Your task to perform on an android device: Check the latest 3D printers on Target. Image 0: 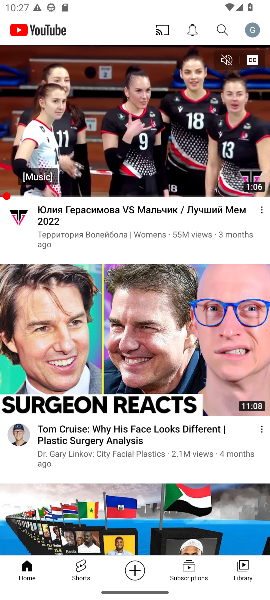
Step 0: press home button
Your task to perform on an android device: Check the latest 3D printers on Target. Image 1: 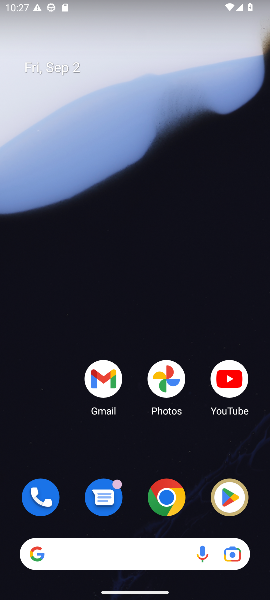
Step 1: click (163, 500)
Your task to perform on an android device: Check the latest 3D printers on Target. Image 2: 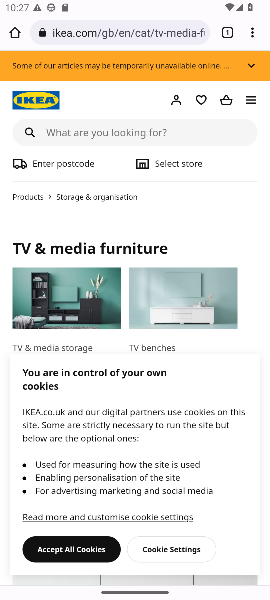
Step 2: click (132, 30)
Your task to perform on an android device: Check the latest 3D printers on Target. Image 3: 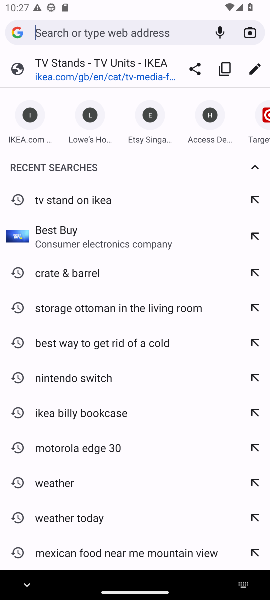
Step 3: type "target"
Your task to perform on an android device: Check the latest 3D printers on Target. Image 4: 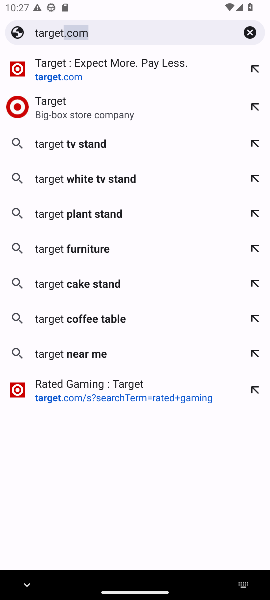
Step 4: click (81, 79)
Your task to perform on an android device: Check the latest 3D printers on Target. Image 5: 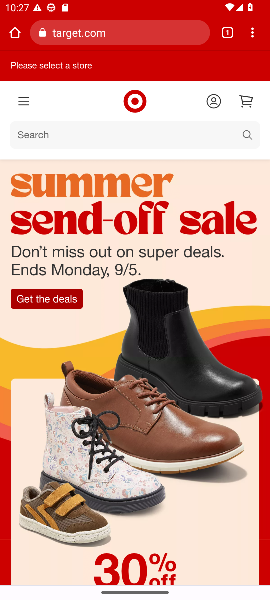
Step 5: click (129, 141)
Your task to perform on an android device: Check the latest 3D printers on Target. Image 6: 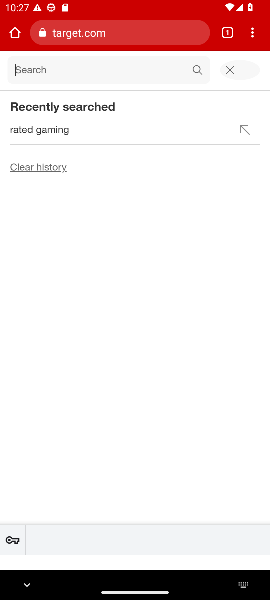
Step 6: type "3d printers"
Your task to perform on an android device: Check the latest 3D printers on Target. Image 7: 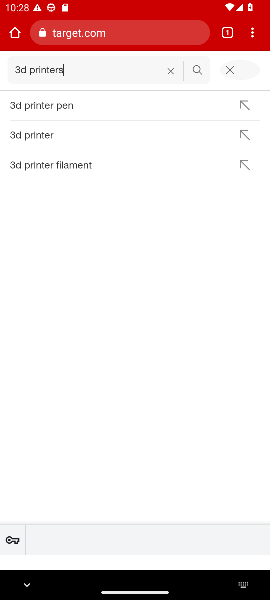
Step 7: click (79, 136)
Your task to perform on an android device: Check the latest 3D printers on Target. Image 8: 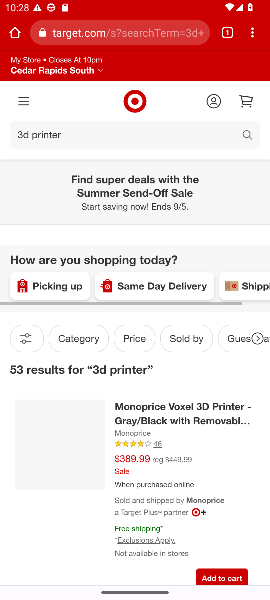
Step 8: task complete